Your task to perform on an android device: Go to sound settings Image 0: 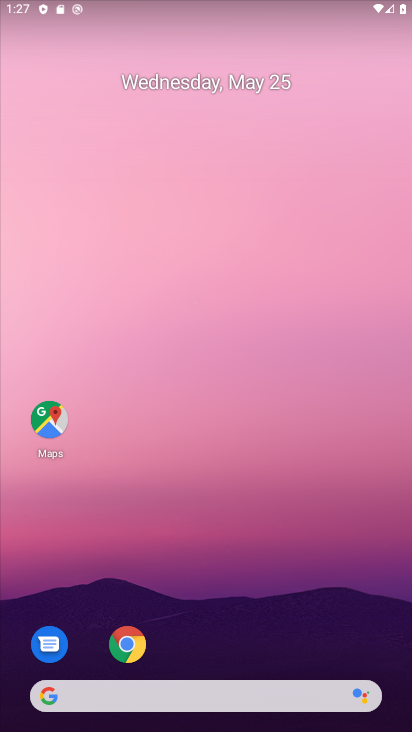
Step 0: drag from (355, 645) to (334, 224)
Your task to perform on an android device: Go to sound settings Image 1: 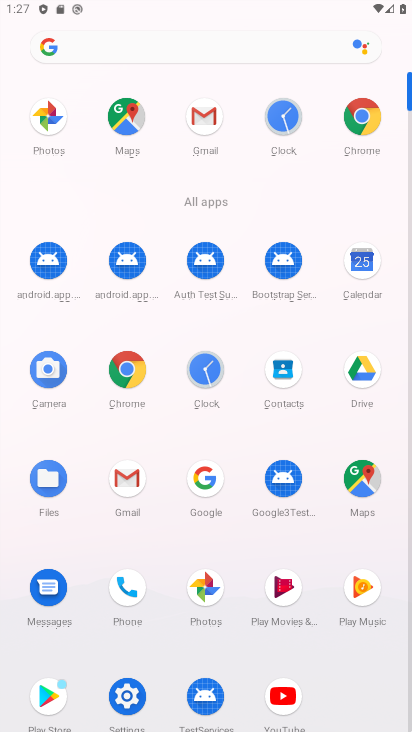
Step 1: click (129, 694)
Your task to perform on an android device: Go to sound settings Image 2: 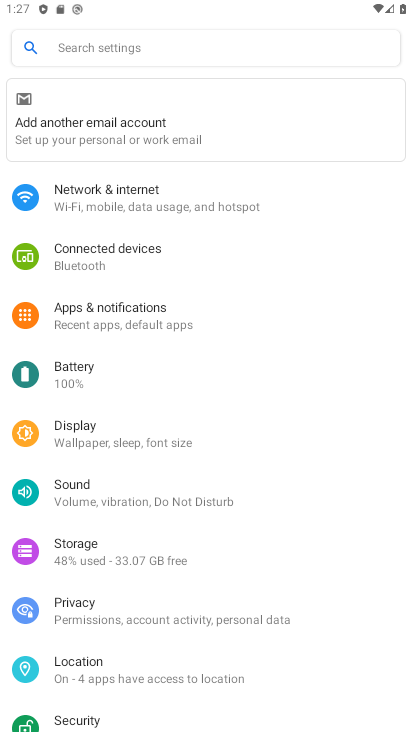
Step 2: drag from (327, 630) to (365, 474)
Your task to perform on an android device: Go to sound settings Image 3: 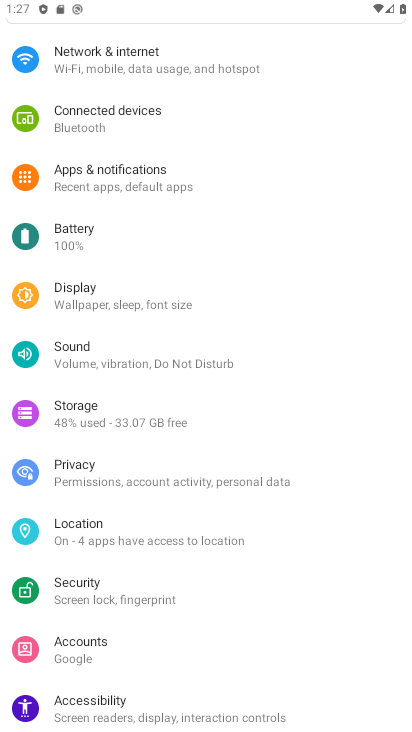
Step 3: drag from (352, 651) to (337, 491)
Your task to perform on an android device: Go to sound settings Image 4: 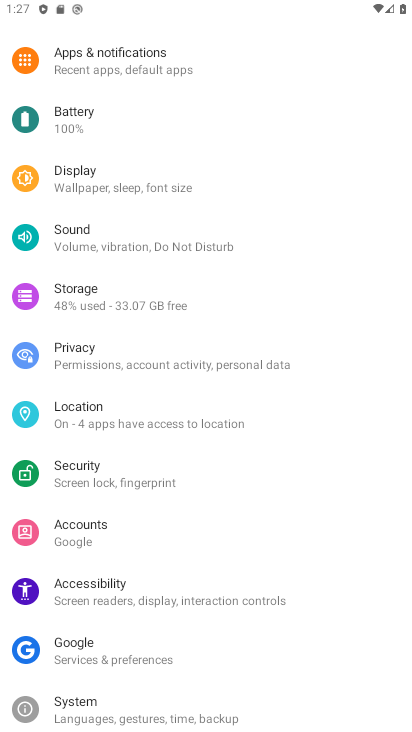
Step 4: drag from (336, 669) to (348, 532)
Your task to perform on an android device: Go to sound settings Image 5: 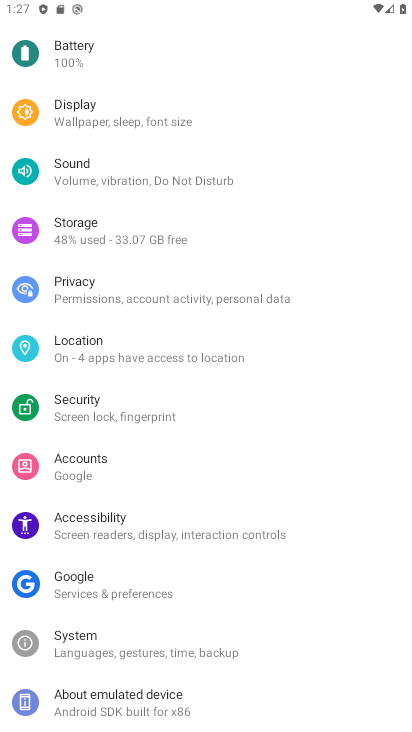
Step 5: drag from (355, 655) to (362, 501)
Your task to perform on an android device: Go to sound settings Image 6: 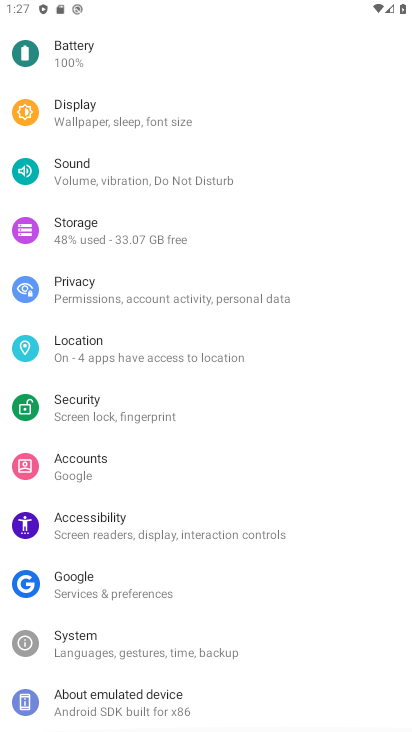
Step 6: drag from (361, 368) to (338, 474)
Your task to perform on an android device: Go to sound settings Image 7: 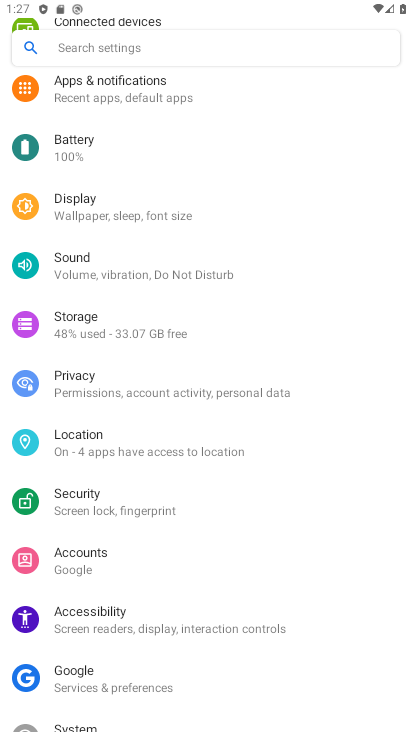
Step 7: drag from (341, 381) to (335, 512)
Your task to perform on an android device: Go to sound settings Image 8: 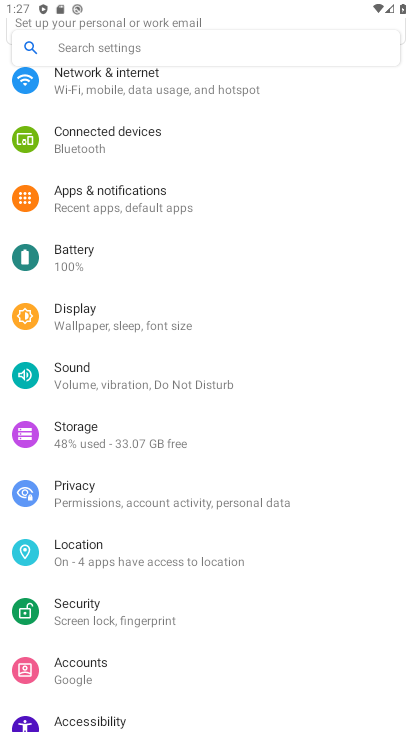
Step 8: drag from (336, 389) to (342, 556)
Your task to perform on an android device: Go to sound settings Image 9: 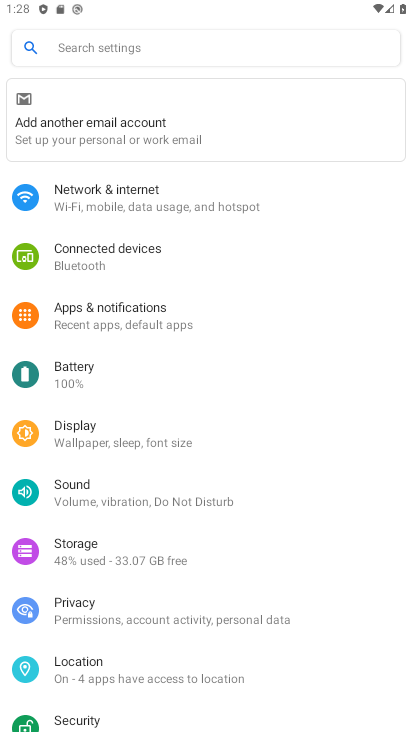
Step 9: click (209, 510)
Your task to perform on an android device: Go to sound settings Image 10: 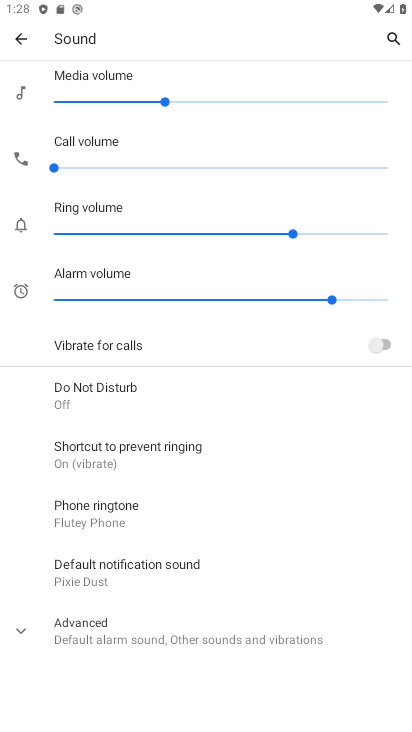
Step 10: task complete